Your task to perform on an android device: Open accessibility settings Image 0: 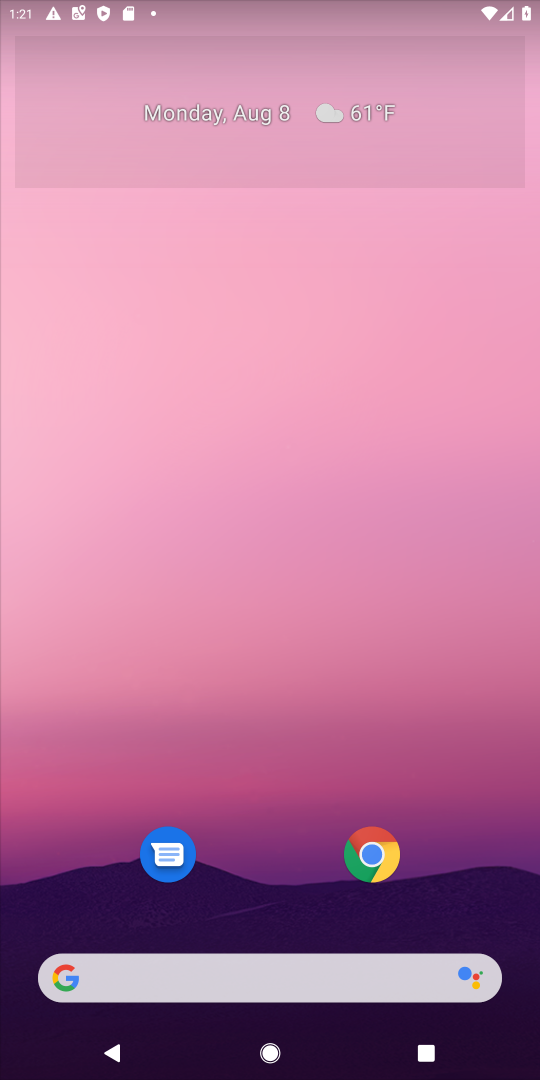
Step 0: drag from (47, 1043) to (262, 436)
Your task to perform on an android device: Open accessibility settings Image 1: 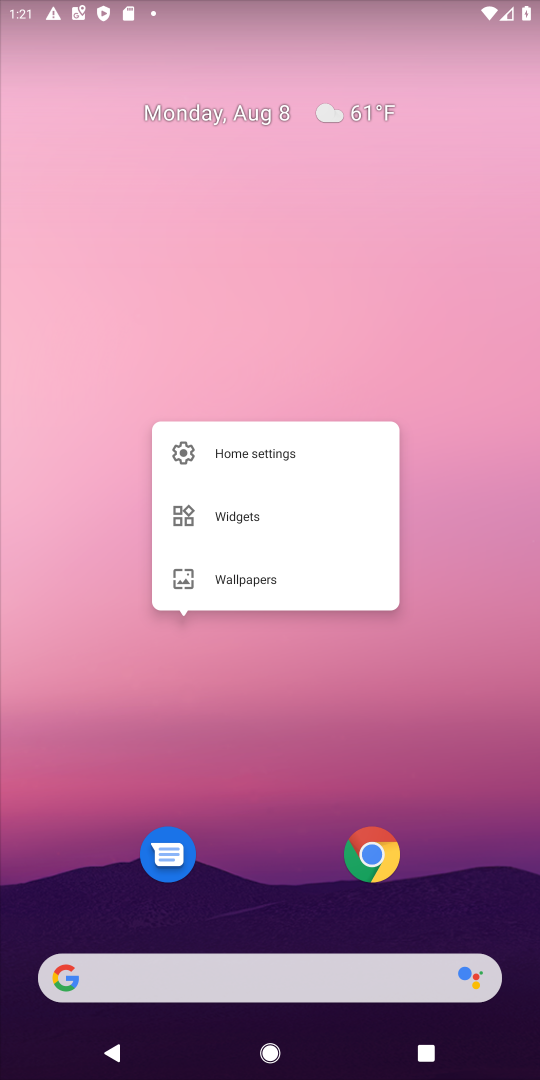
Step 1: drag from (44, 1028) to (253, 257)
Your task to perform on an android device: Open accessibility settings Image 2: 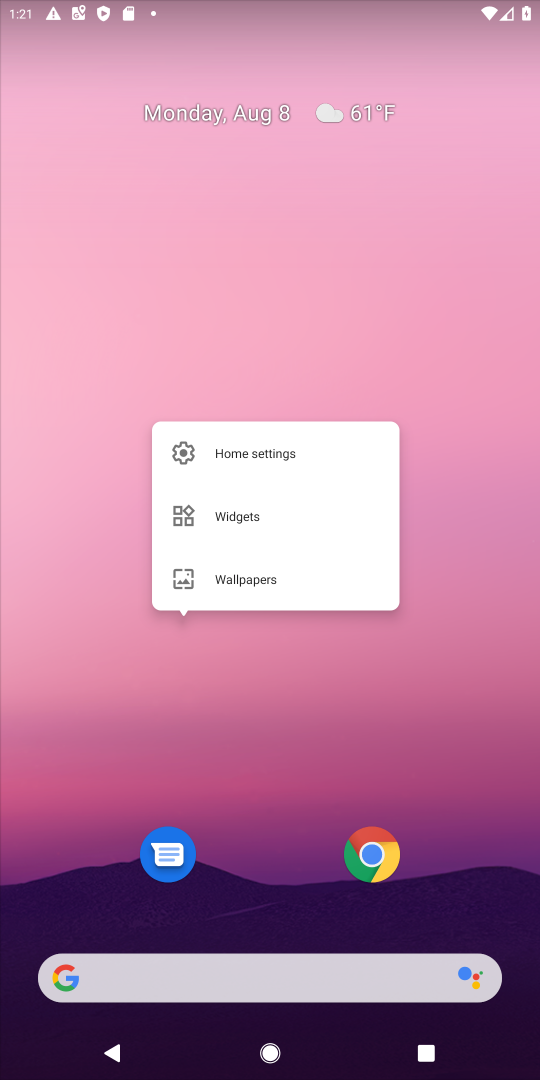
Step 2: drag from (95, 847) to (245, 216)
Your task to perform on an android device: Open accessibility settings Image 3: 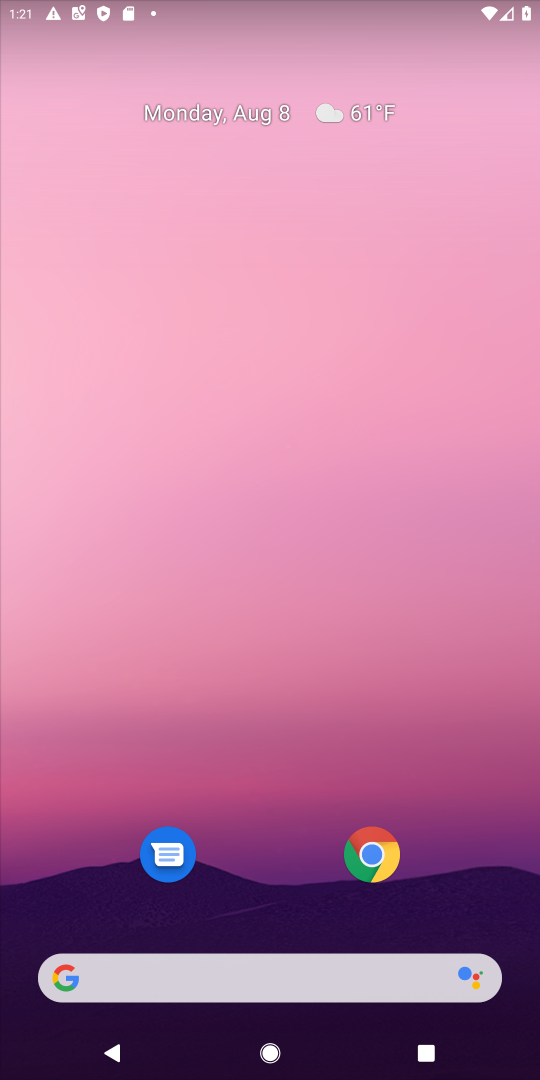
Step 3: drag from (57, 1022) to (342, 386)
Your task to perform on an android device: Open accessibility settings Image 4: 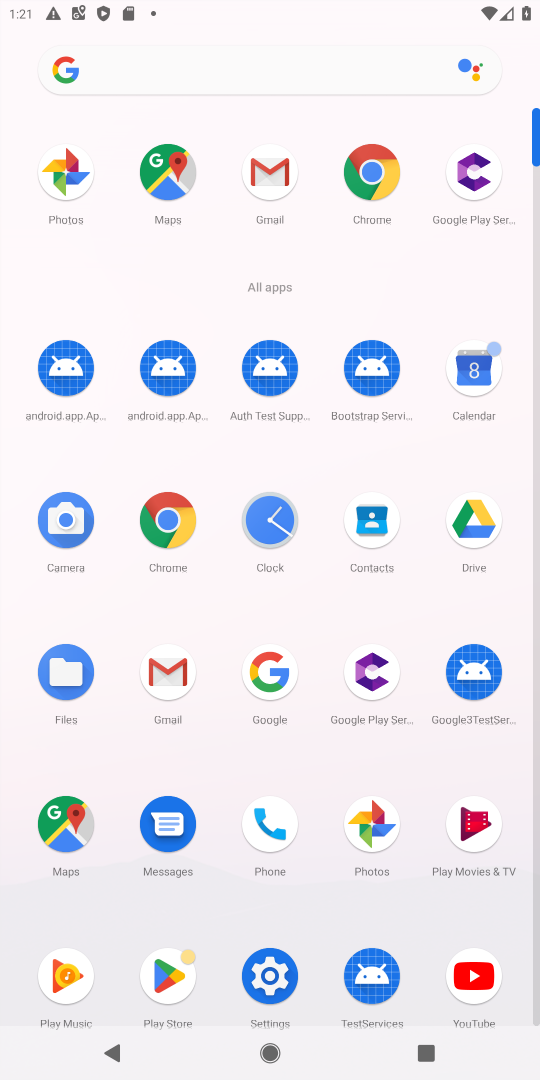
Step 4: click (268, 957)
Your task to perform on an android device: Open accessibility settings Image 5: 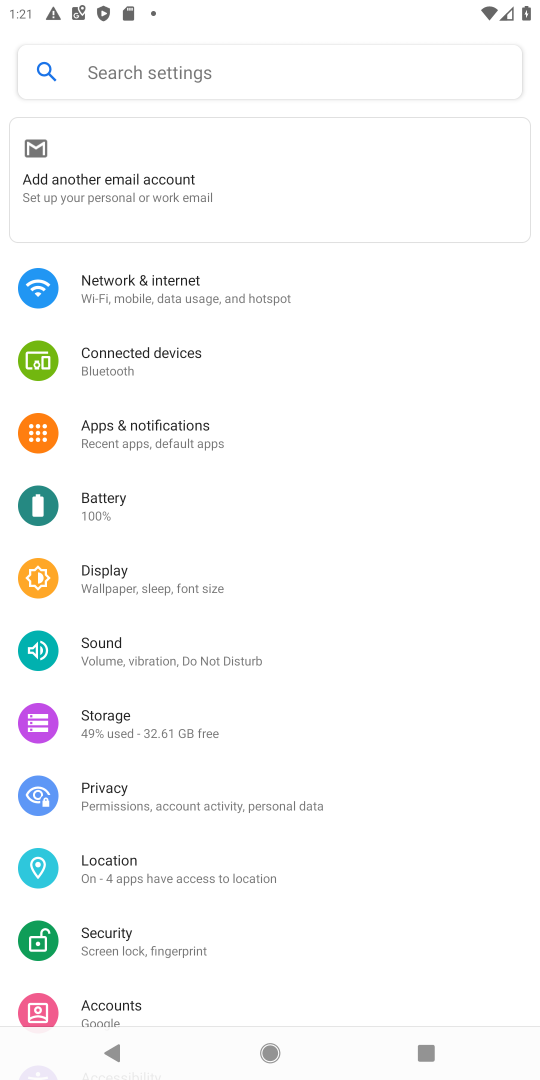
Step 5: drag from (365, 975) to (350, 341)
Your task to perform on an android device: Open accessibility settings Image 6: 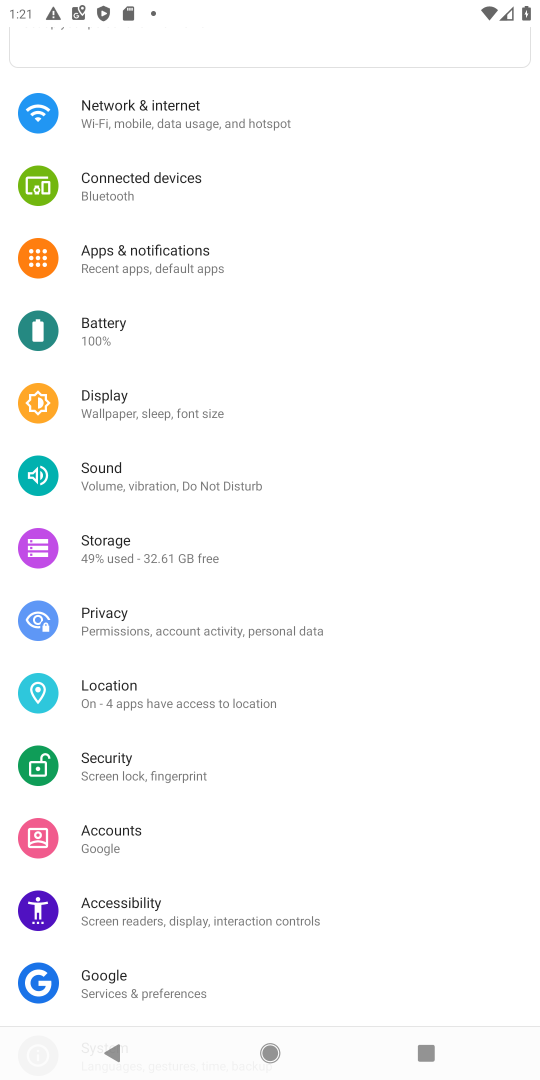
Step 6: click (132, 913)
Your task to perform on an android device: Open accessibility settings Image 7: 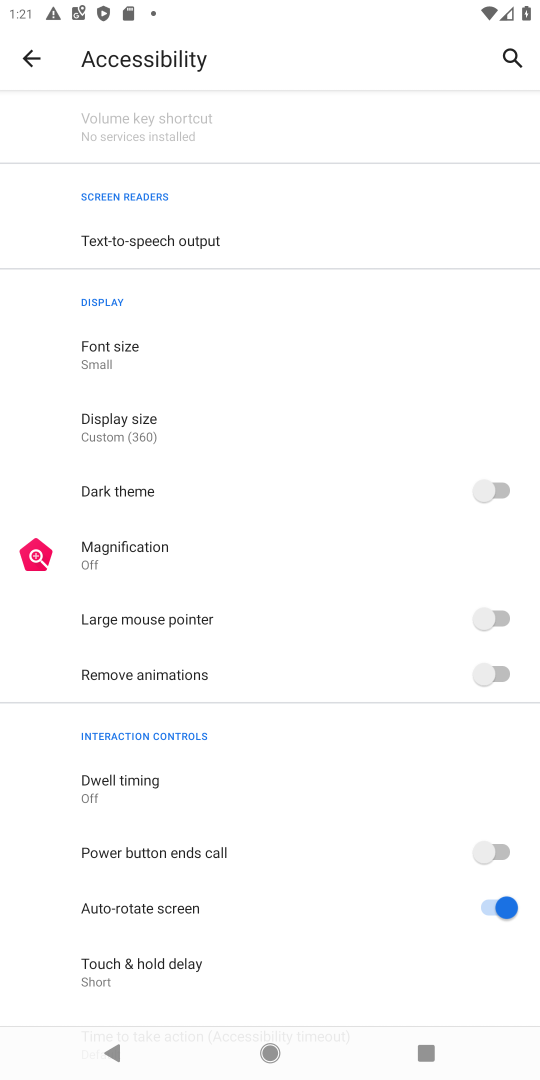
Step 7: task complete